Your task to perform on an android device: check out phone information Image 0: 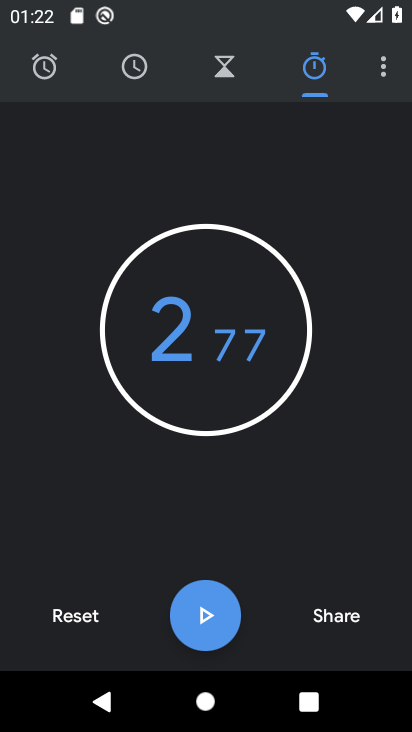
Step 0: press home button
Your task to perform on an android device: check out phone information Image 1: 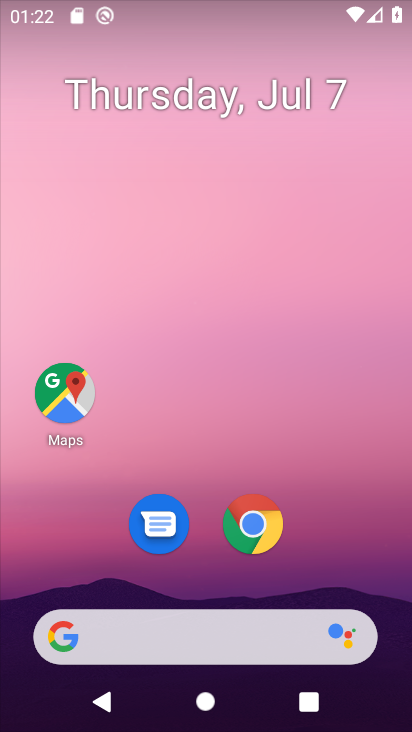
Step 1: drag from (258, 412) to (242, 32)
Your task to perform on an android device: check out phone information Image 2: 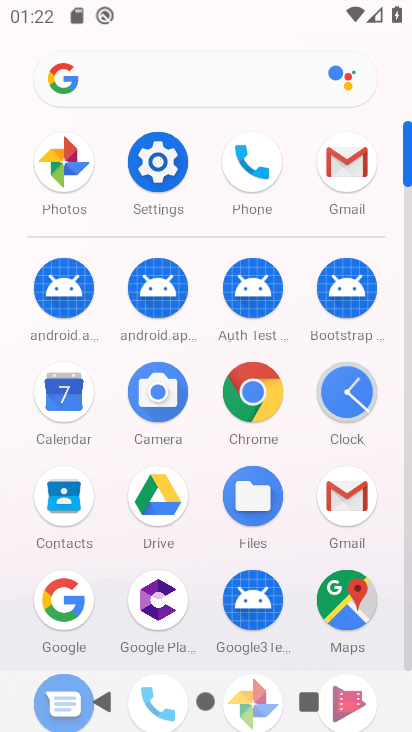
Step 2: click (252, 174)
Your task to perform on an android device: check out phone information Image 3: 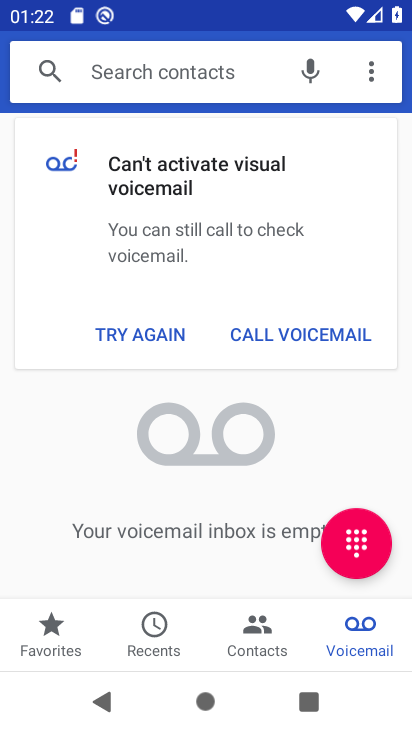
Step 3: click (368, 70)
Your task to perform on an android device: check out phone information Image 4: 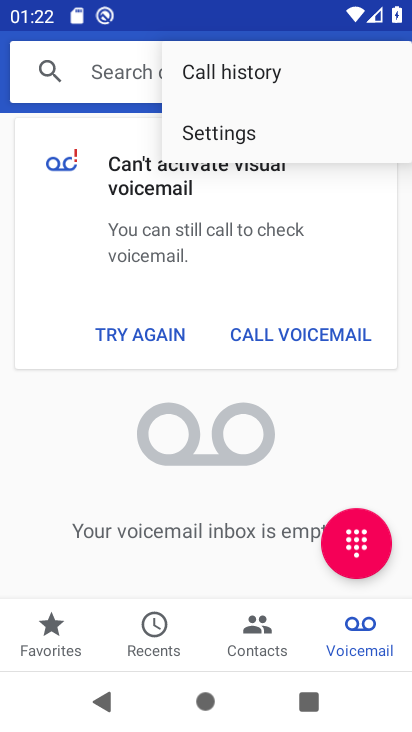
Step 4: click (294, 146)
Your task to perform on an android device: check out phone information Image 5: 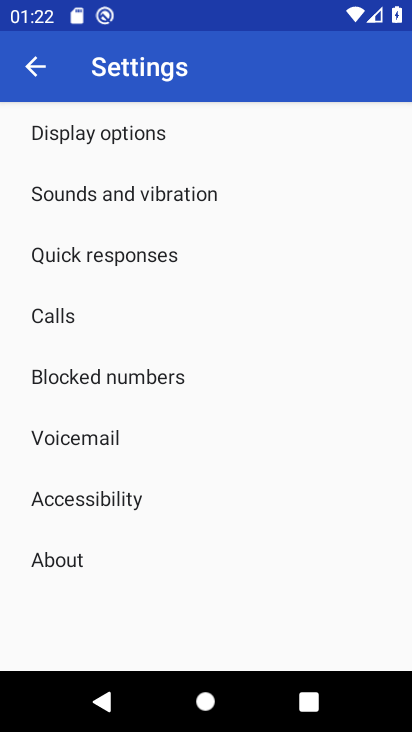
Step 5: click (61, 546)
Your task to perform on an android device: check out phone information Image 6: 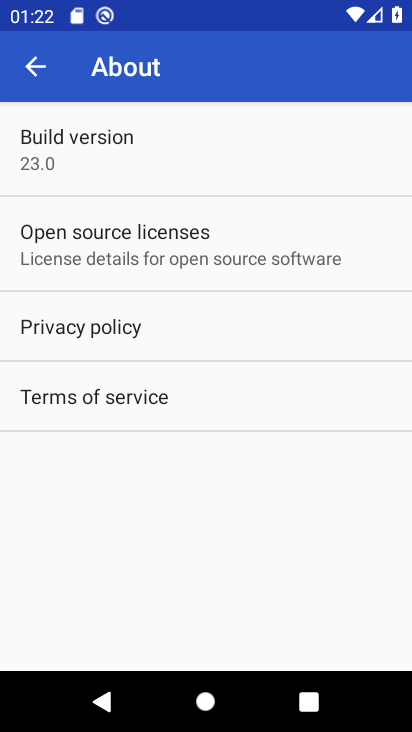
Step 6: task complete